Your task to perform on an android device: Show me the alarms in the clock app Image 0: 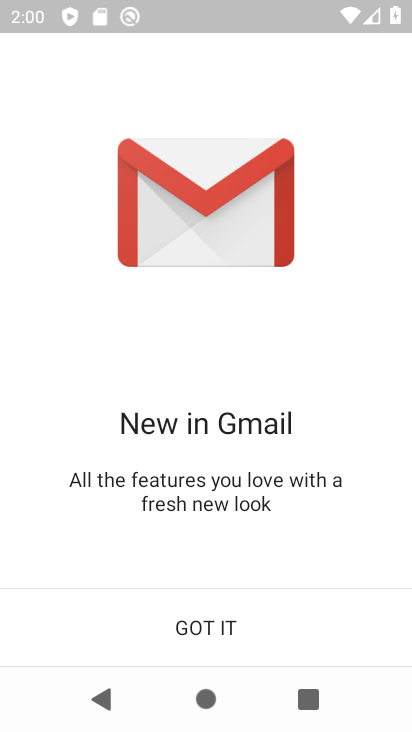
Step 0: press back button
Your task to perform on an android device: Show me the alarms in the clock app Image 1: 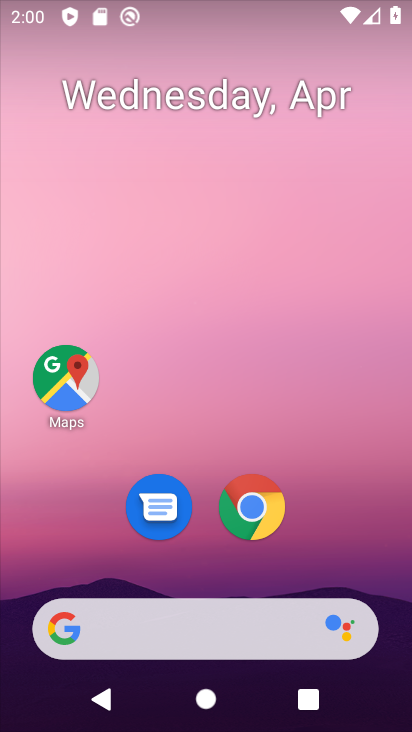
Step 1: drag from (178, 564) to (281, 97)
Your task to perform on an android device: Show me the alarms in the clock app Image 2: 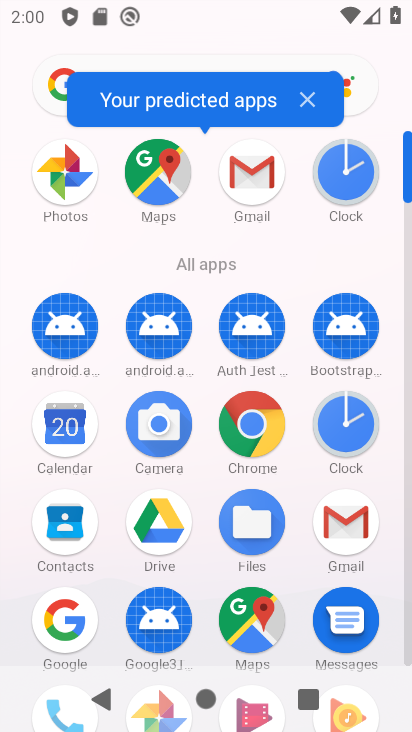
Step 2: click (348, 441)
Your task to perform on an android device: Show me the alarms in the clock app Image 3: 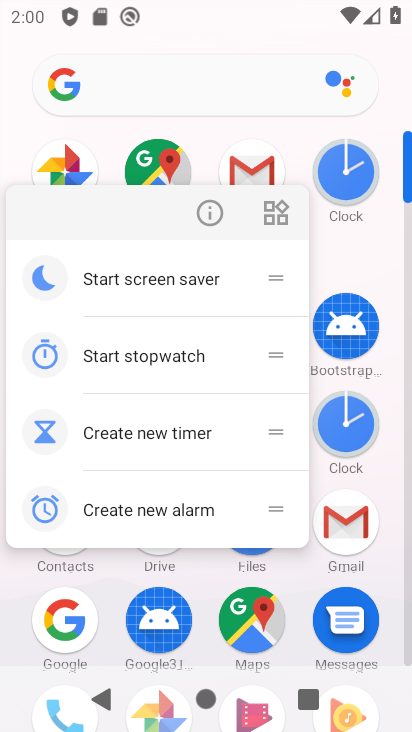
Step 3: click (347, 418)
Your task to perform on an android device: Show me the alarms in the clock app Image 4: 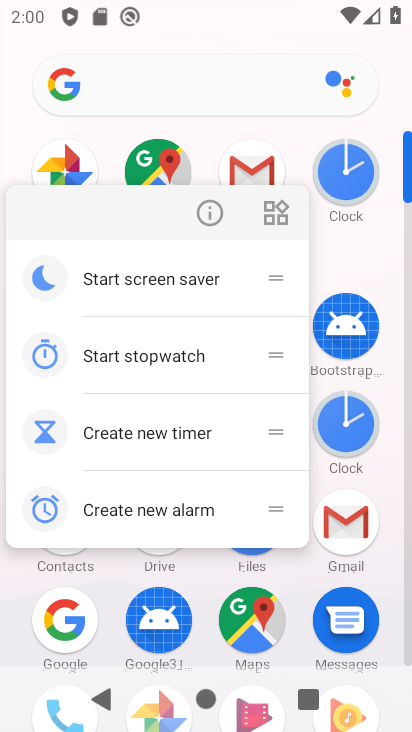
Step 4: click (348, 423)
Your task to perform on an android device: Show me the alarms in the clock app Image 5: 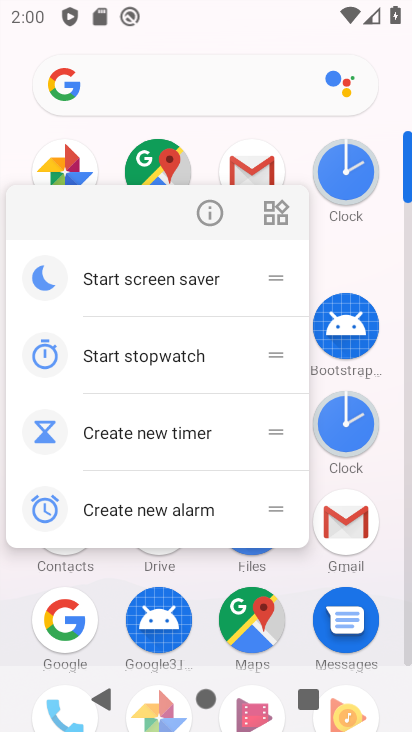
Step 5: click (348, 430)
Your task to perform on an android device: Show me the alarms in the clock app Image 6: 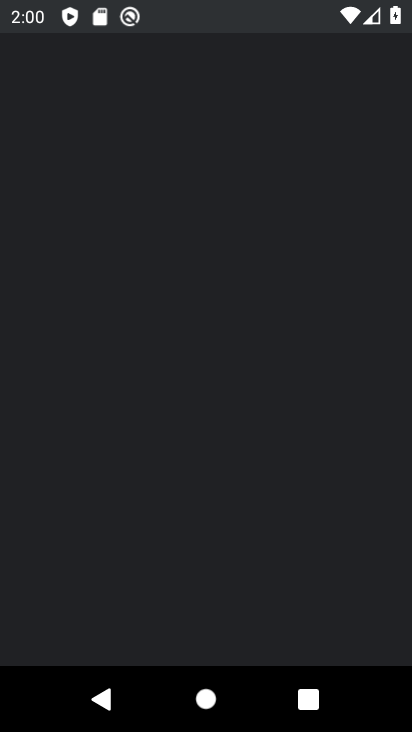
Step 6: click (348, 430)
Your task to perform on an android device: Show me the alarms in the clock app Image 7: 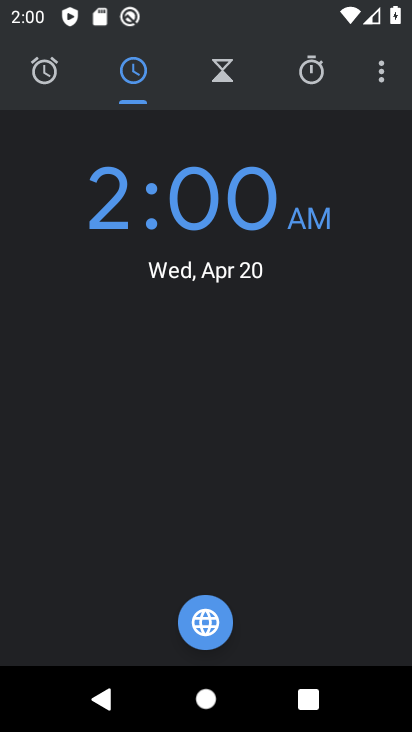
Step 7: click (62, 83)
Your task to perform on an android device: Show me the alarms in the clock app Image 8: 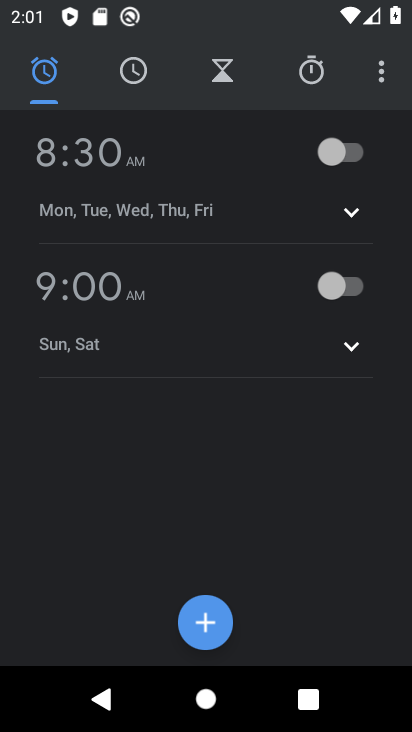
Step 8: task complete